Your task to perform on an android device: change text size in settings app Image 0: 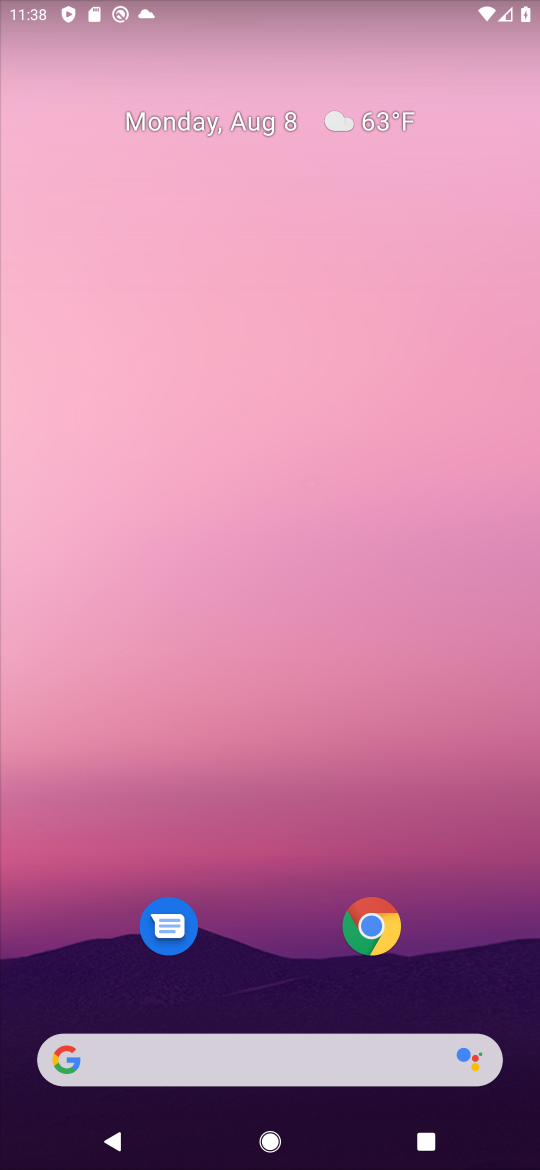
Step 0: drag from (91, 1169) to (338, 50)
Your task to perform on an android device: change text size in settings app Image 1: 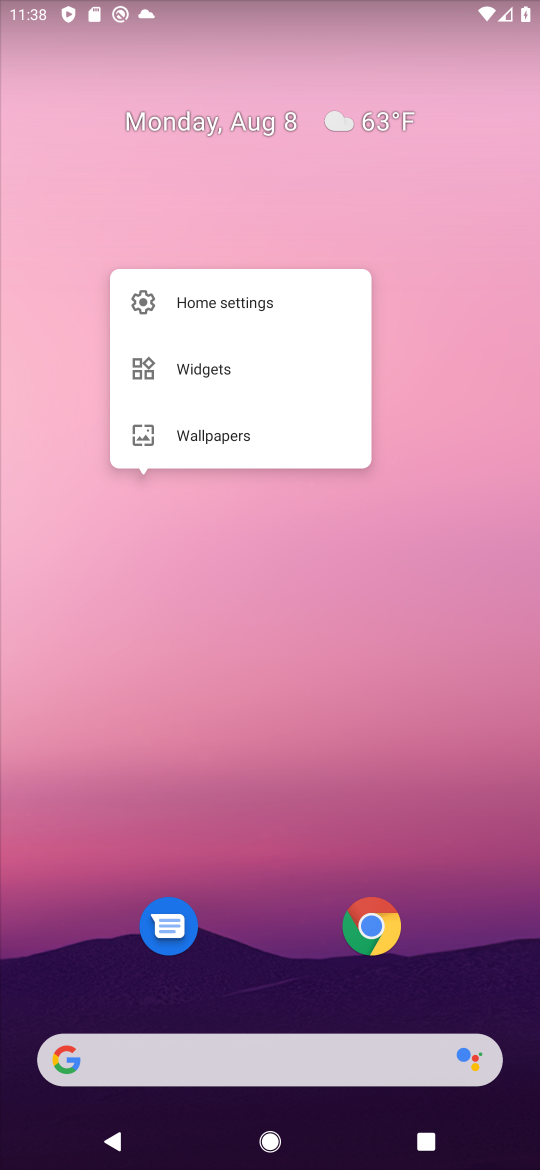
Step 1: press home button
Your task to perform on an android device: change text size in settings app Image 2: 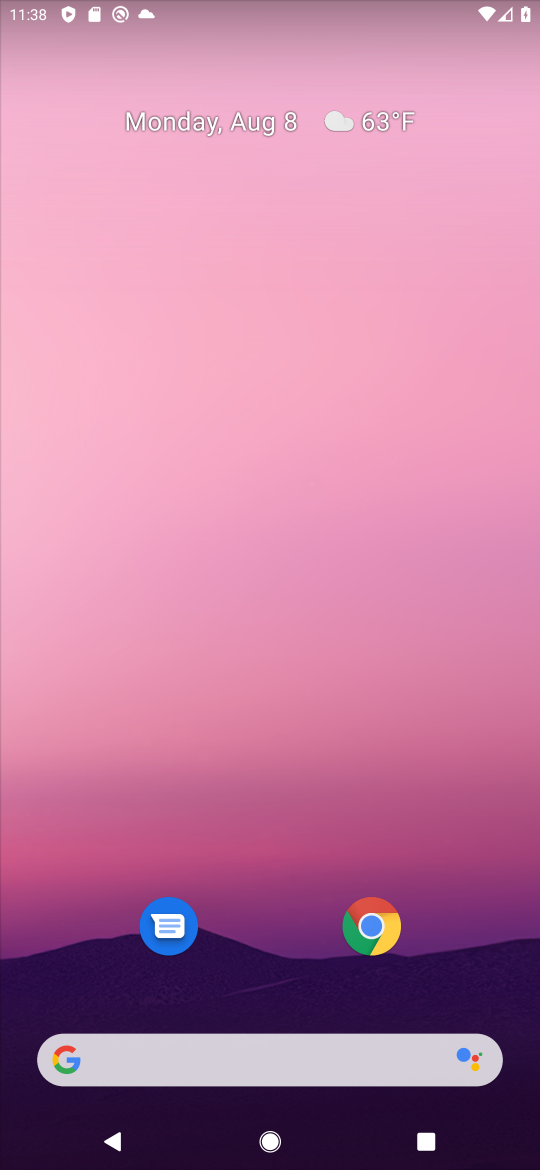
Step 2: drag from (141, 668) to (355, 65)
Your task to perform on an android device: change text size in settings app Image 3: 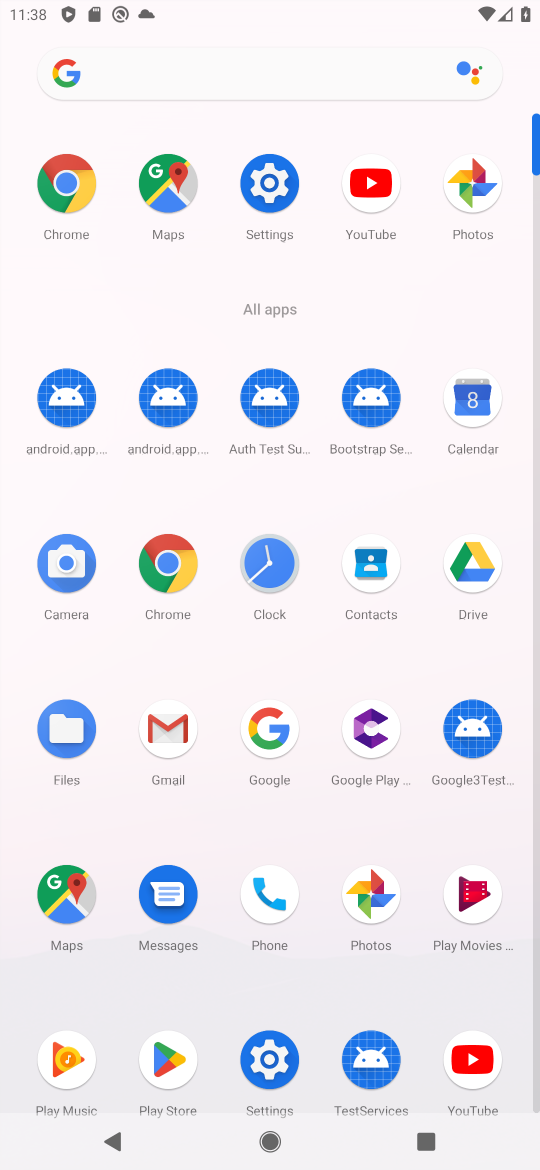
Step 3: click (265, 191)
Your task to perform on an android device: change text size in settings app Image 4: 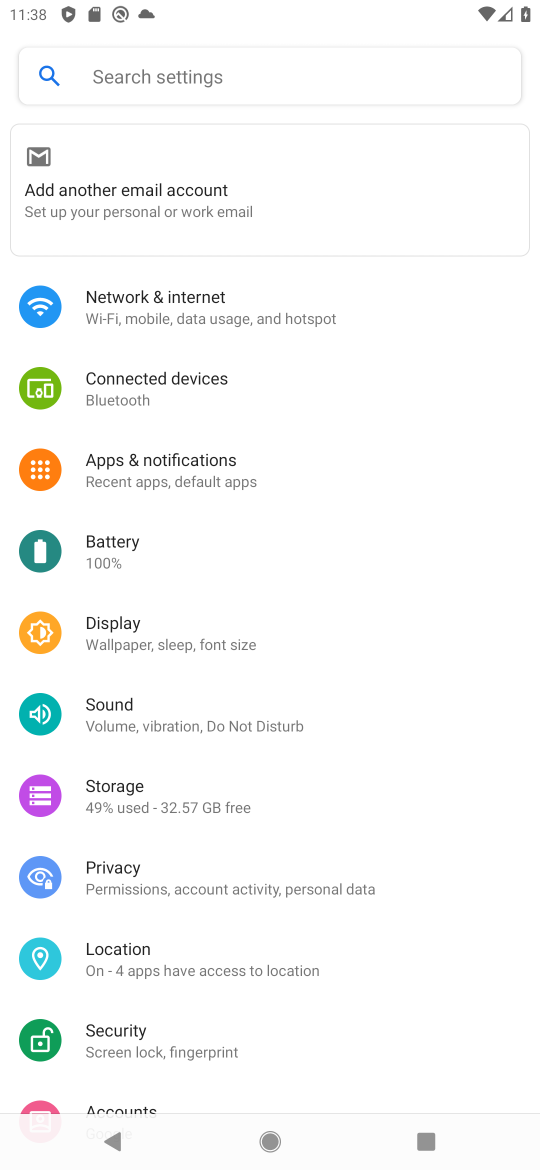
Step 4: click (239, 631)
Your task to perform on an android device: change text size in settings app Image 5: 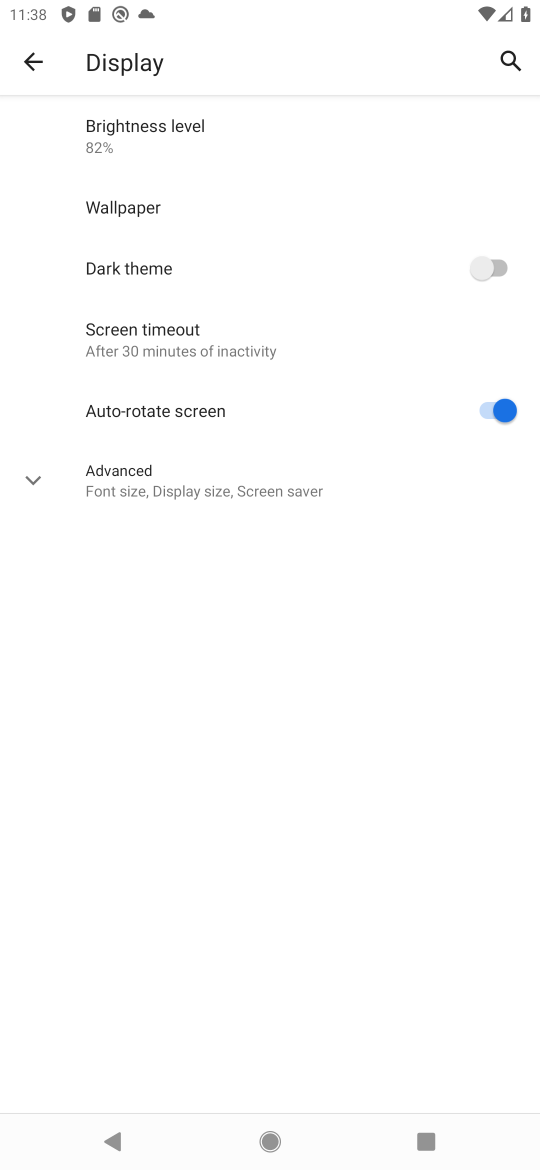
Step 5: click (207, 479)
Your task to perform on an android device: change text size in settings app Image 6: 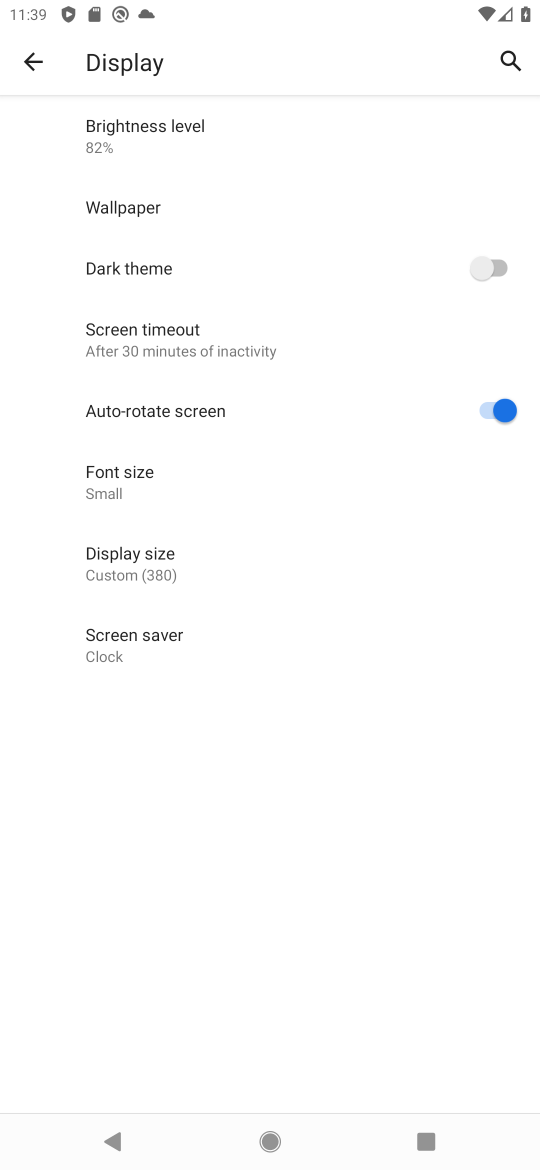
Step 6: click (175, 465)
Your task to perform on an android device: change text size in settings app Image 7: 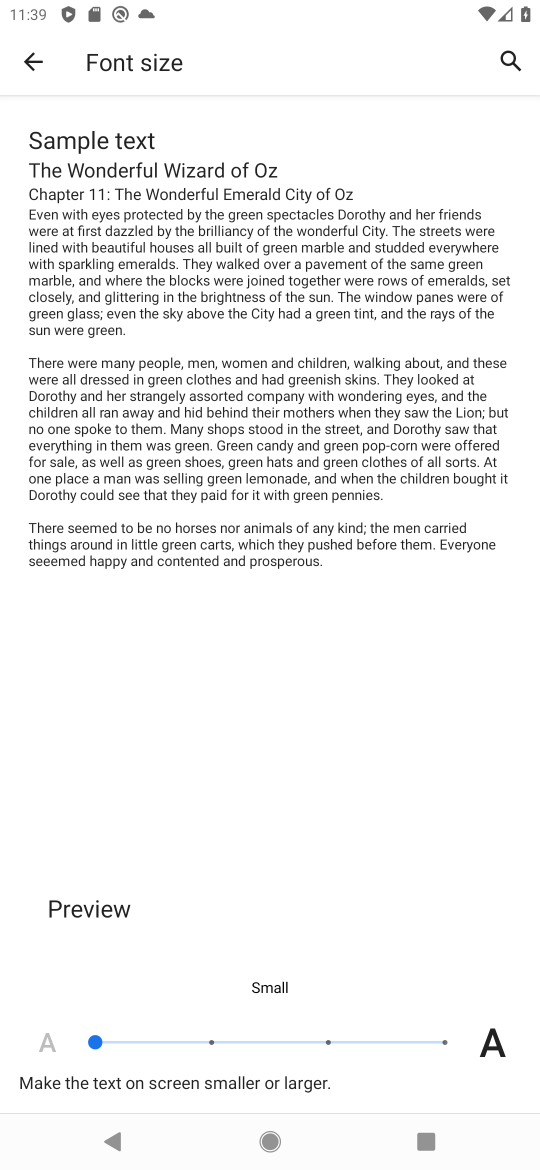
Step 7: click (222, 1035)
Your task to perform on an android device: change text size in settings app Image 8: 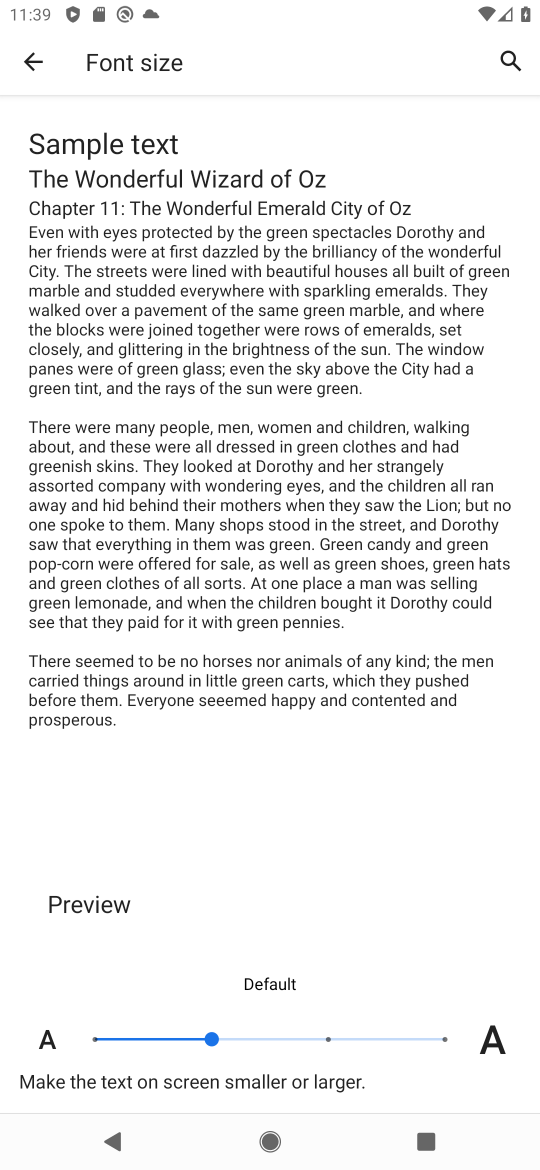
Step 8: click (321, 1040)
Your task to perform on an android device: change text size in settings app Image 9: 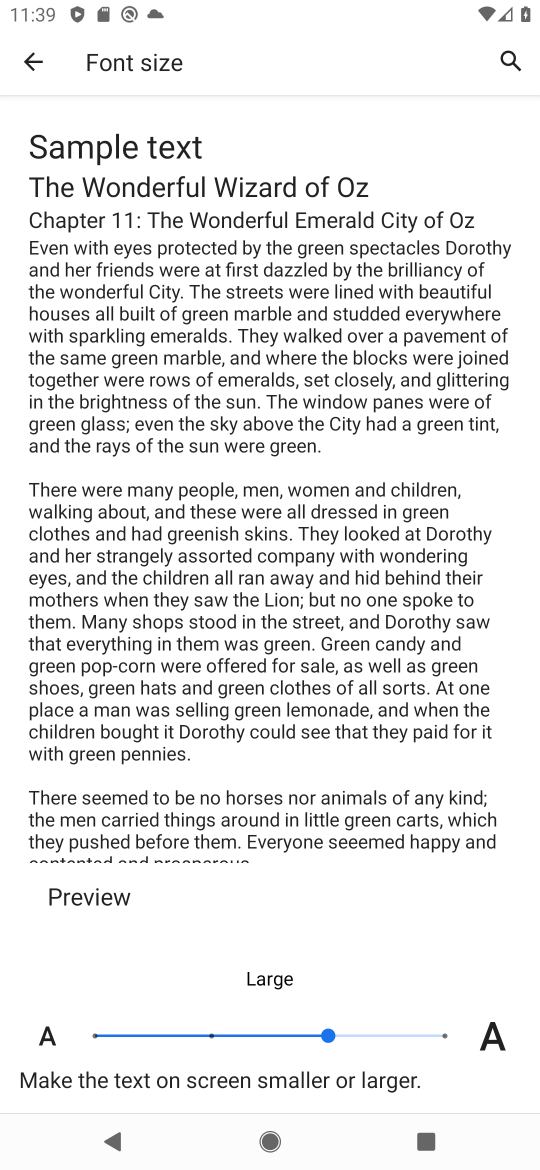
Step 9: task complete